Your task to perform on an android device: change the clock display to analog Image 0: 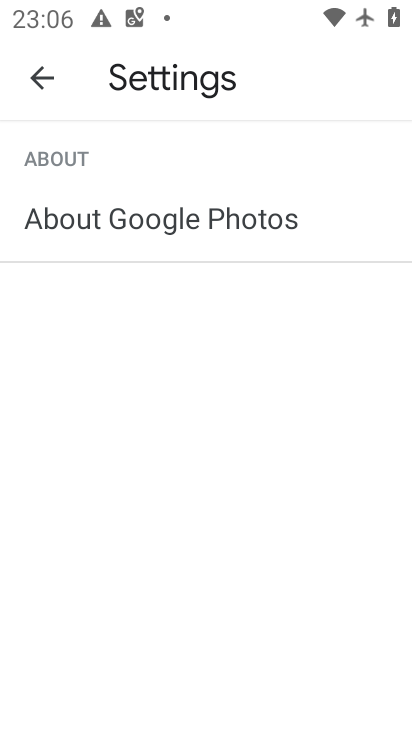
Step 0: press home button
Your task to perform on an android device: change the clock display to analog Image 1: 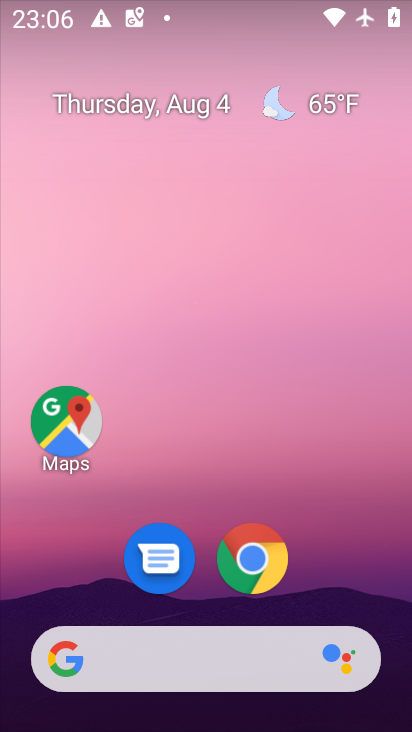
Step 1: drag from (343, 562) to (225, 0)
Your task to perform on an android device: change the clock display to analog Image 2: 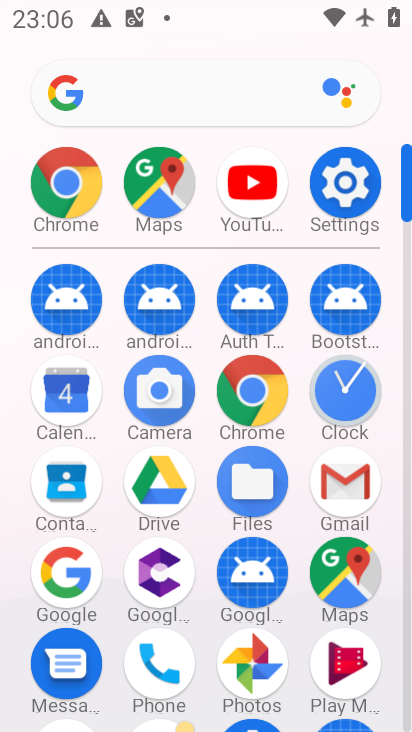
Step 2: click (359, 400)
Your task to perform on an android device: change the clock display to analog Image 3: 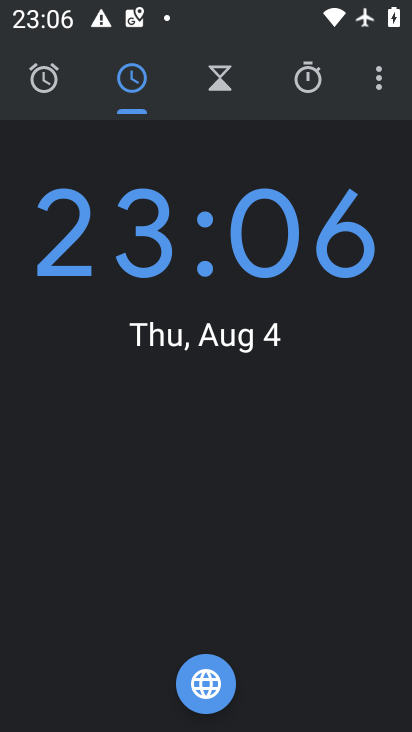
Step 3: click (382, 70)
Your task to perform on an android device: change the clock display to analog Image 4: 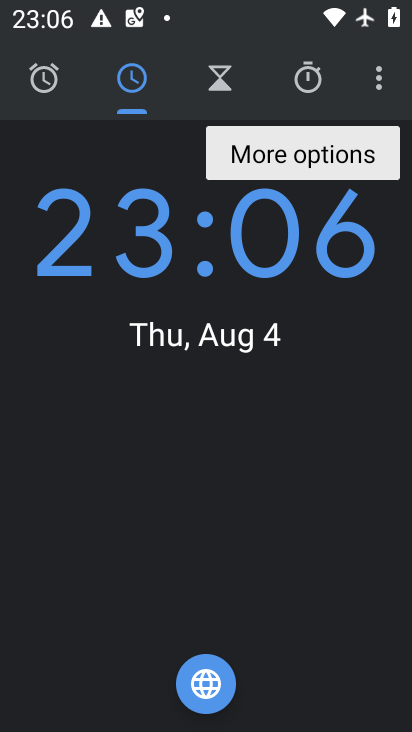
Step 4: click (382, 70)
Your task to perform on an android device: change the clock display to analog Image 5: 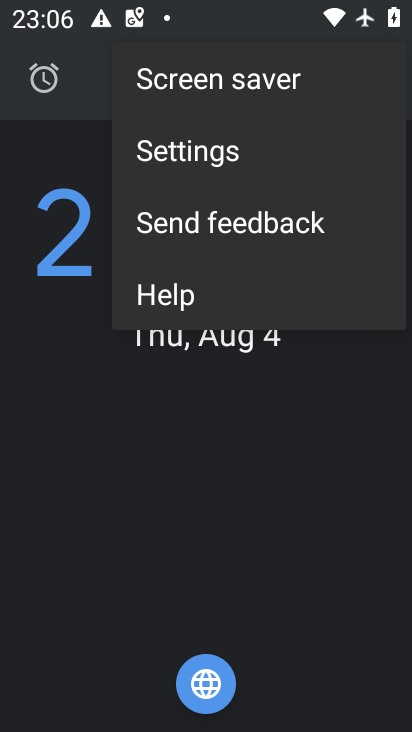
Step 5: click (208, 194)
Your task to perform on an android device: change the clock display to analog Image 6: 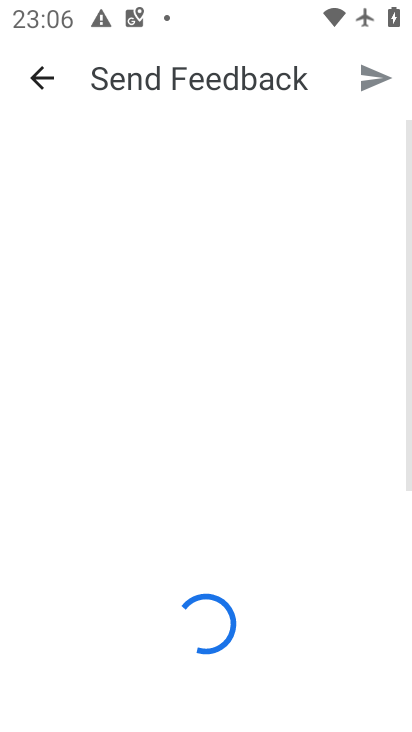
Step 6: click (46, 62)
Your task to perform on an android device: change the clock display to analog Image 7: 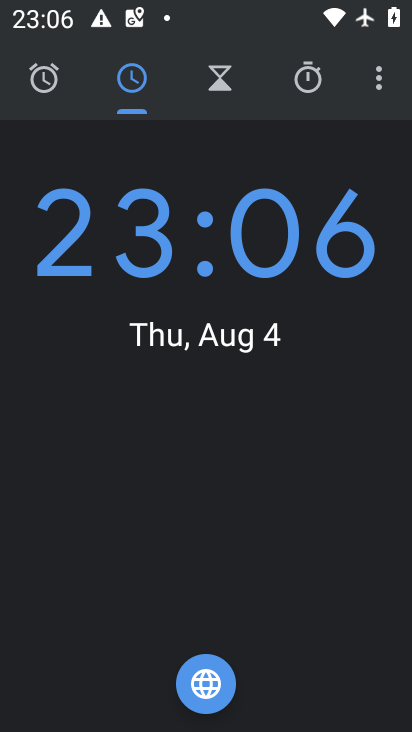
Step 7: click (371, 71)
Your task to perform on an android device: change the clock display to analog Image 8: 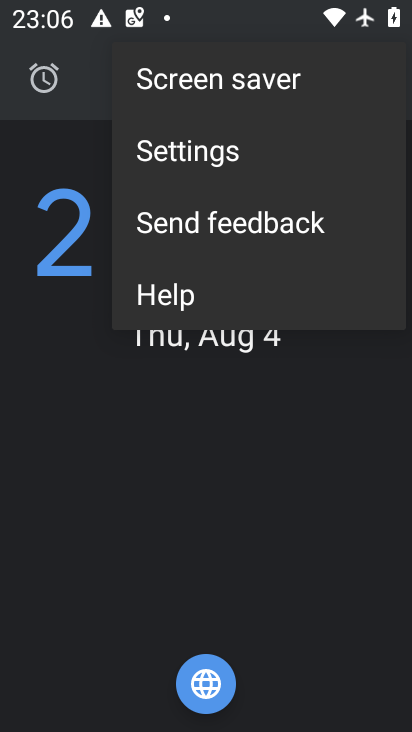
Step 8: click (192, 147)
Your task to perform on an android device: change the clock display to analog Image 9: 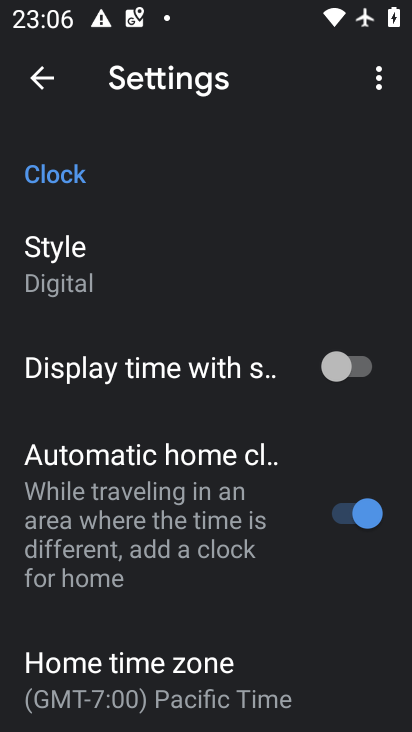
Step 9: click (72, 269)
Your task to perform on an android device: change the clock display to analog Image 10: 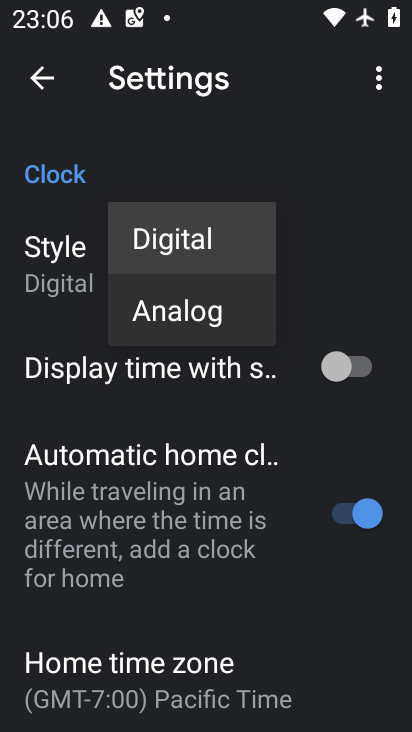
Step 10: click (176, 318)
Your task to perform on an android device: change the clock display to analog Image 11: 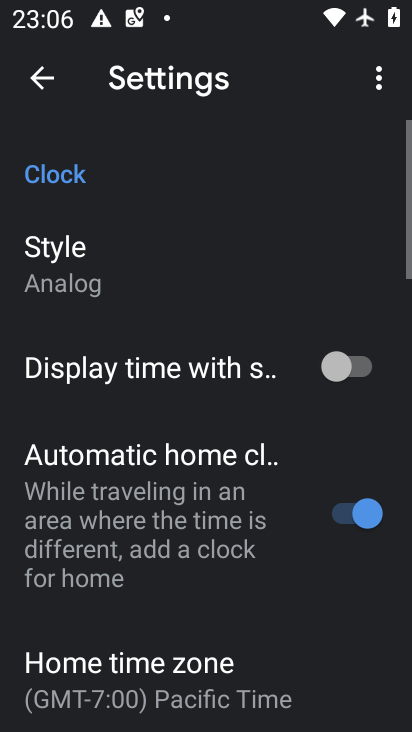
Step 11: task complete